Your task to perform on an android device: toggle airplane mode Image 0: 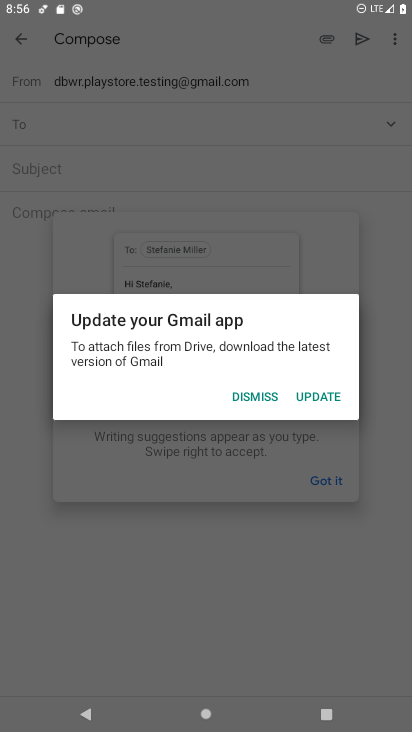
Step 0: press home button
Your task to perform on an android device: toggle airplane mode Image 1: 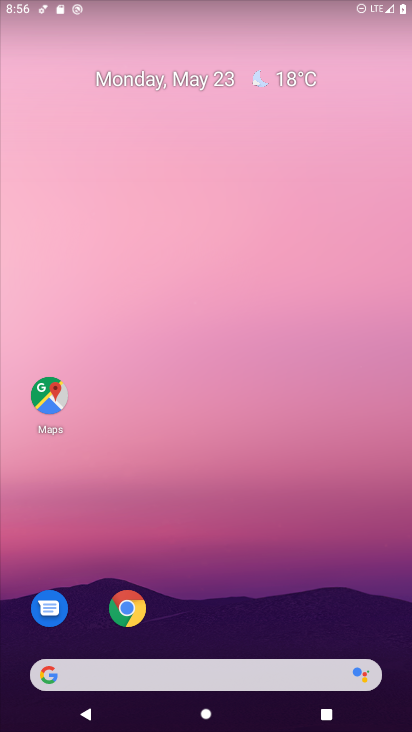
Step 1: drag from (223, 726) to (234, 5)
Your task to perform on an android device: toggle airplane mode Image 2: 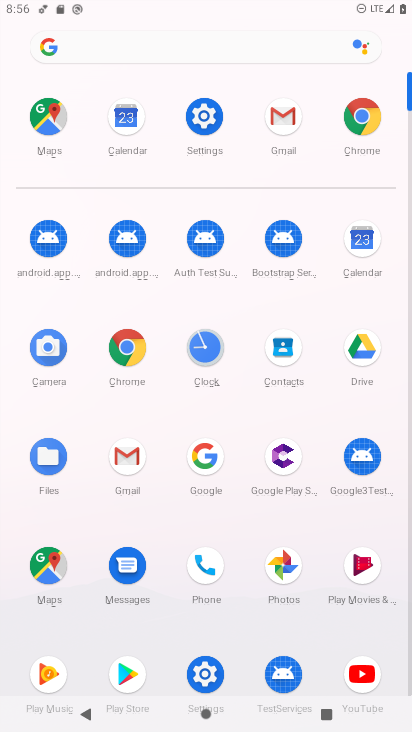
Step 2: click (205, 123)
Your task to perform on an android device: toggle airplane mode Image 3: 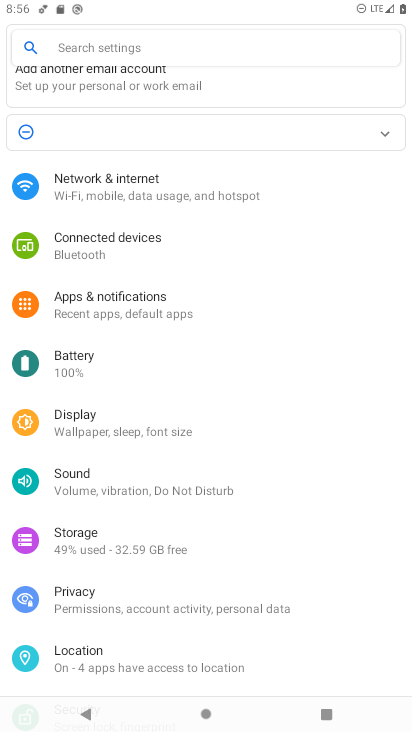
Step 3: click (89, 185)
Your task to perform on an android device: toggle airplane mode Image 4: 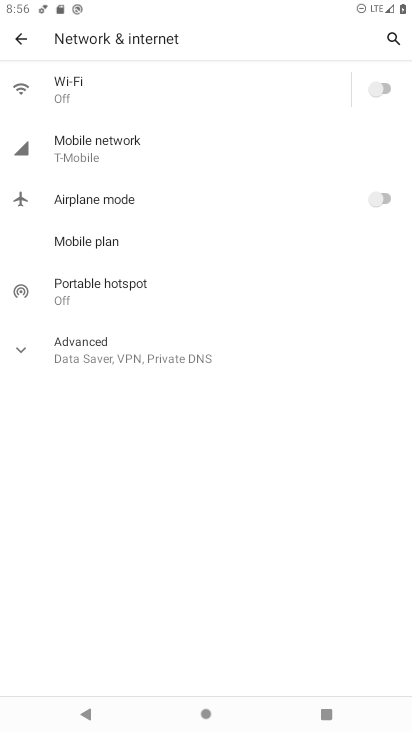
Step 4: click (387, 193)
Your task to perform on an android device: toggle airplane mode Image 5: 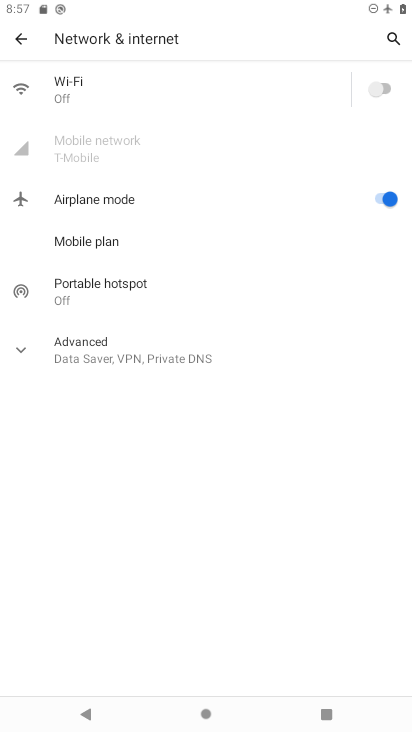
Step 5: task complete